Your task to perform on an android device: turn off javascript in the chrome app Image 0: 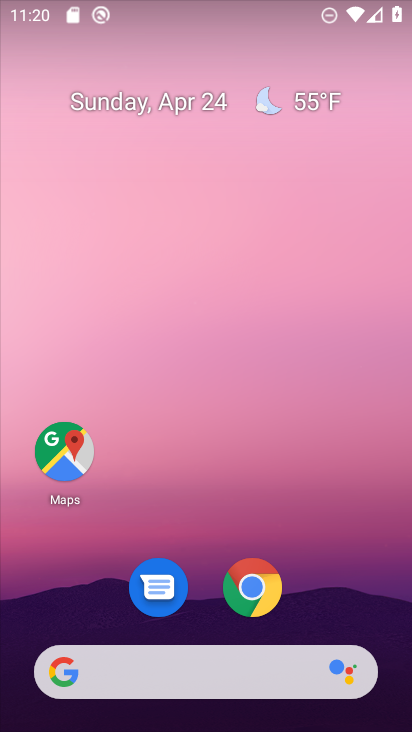
Step 0: drag from (300, 615) to (264, 168)
Your task to perform on an android device: turn off javascript in the chrome app Image 1: 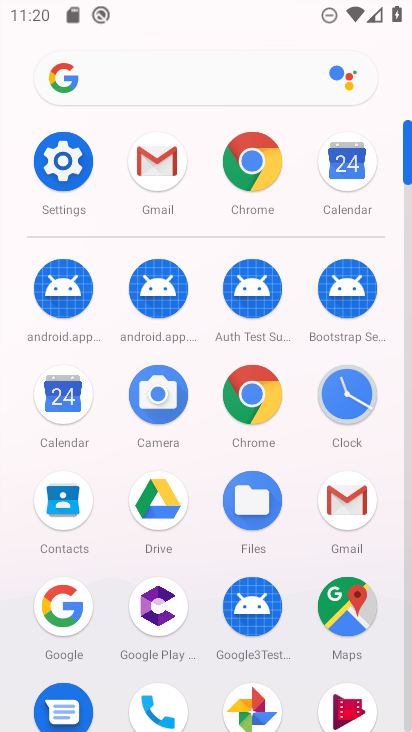
Step 1: click (249, 392)
Your task to perform on an android device: turn off javascript in the chrome app Image 2: 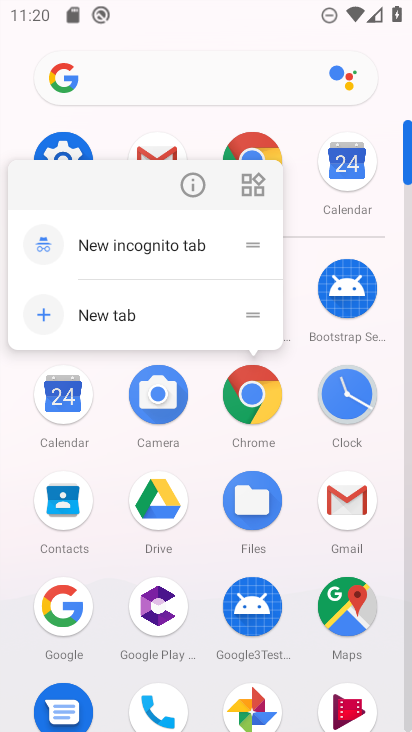
Step 2: click (246, 401)
Your task to perform on an android device: turn off javascript in the chrome app Image 3: 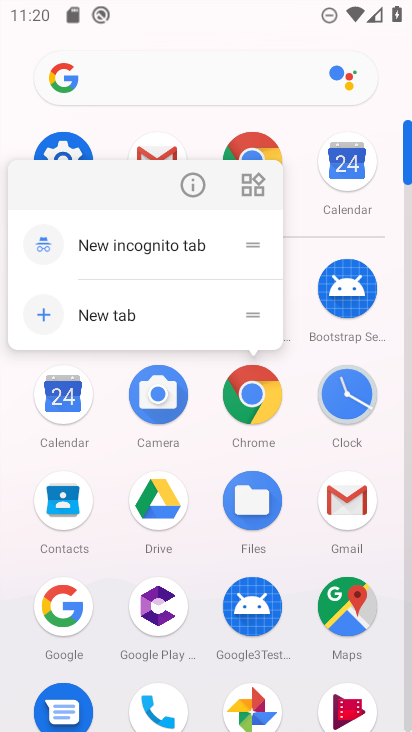
Step 3: click (263, 401)
Your task to perform on an android device: turn off javascript in the chrome app Image 4: 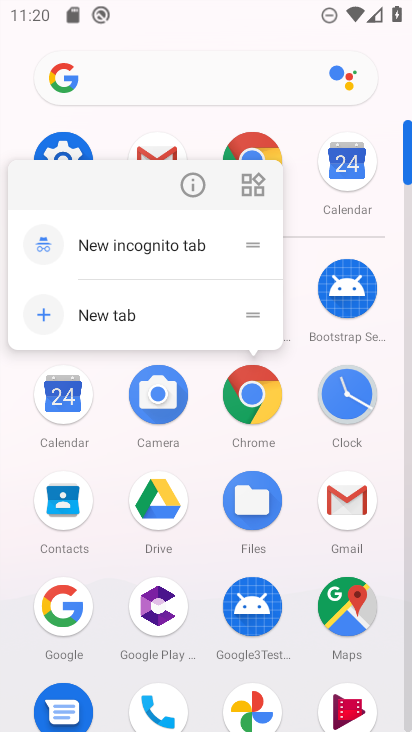
Step 4: click (268, 411)
Your task to perform on an android device: turn off javascript in the chrome app Image 5: 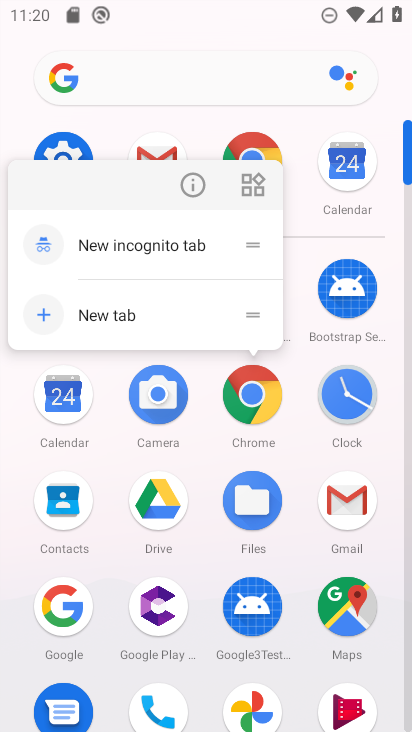
Step 5: click (233, 402)
Your task to perform on an android device: turn off javascript in the chrome app Image 6: 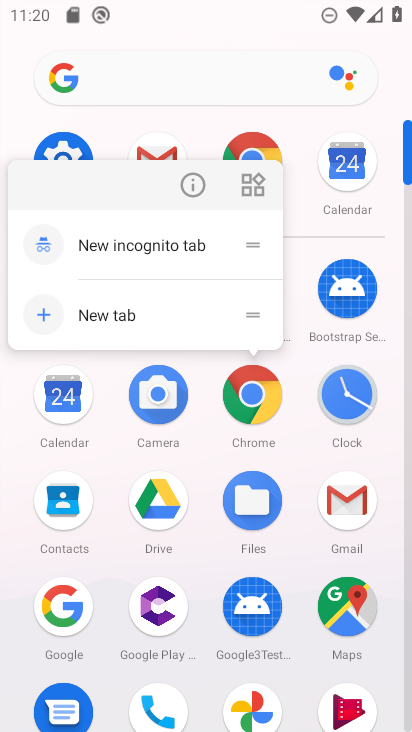
Step 6: click (251, 375)
Your task to perform on an android device: turn off javascript in the chrome app Image 7: 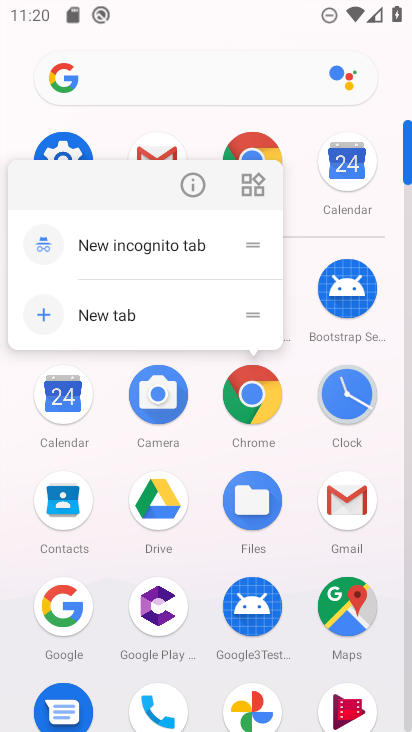
Step 7: click (258, 412)
Your task to perform on an android device: turn off javascript in the chrome app Image 8: 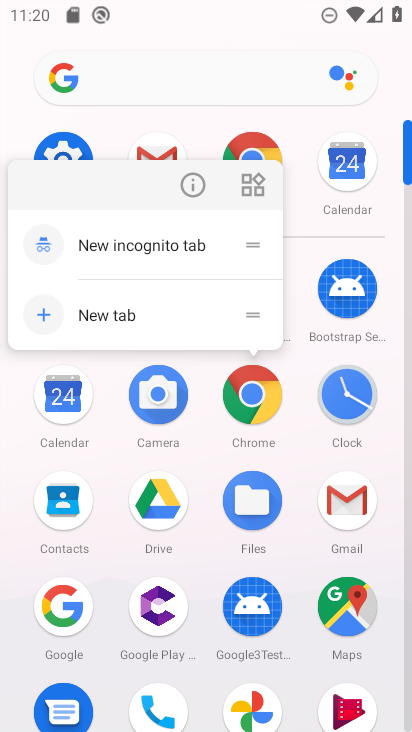
Step 8: click (257, 402)
Your task to perform on an android device: turn off javascript in the chrome app Image 9: 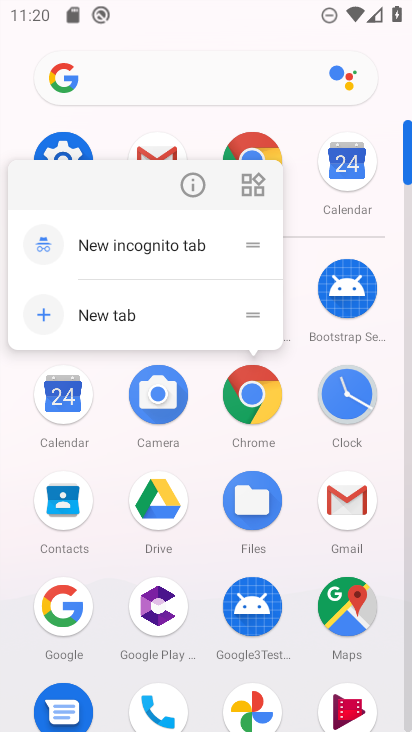
Step 9: click (292, 463)
Your task to perform on an android device: turn off javascript in the chrome app Image 10: 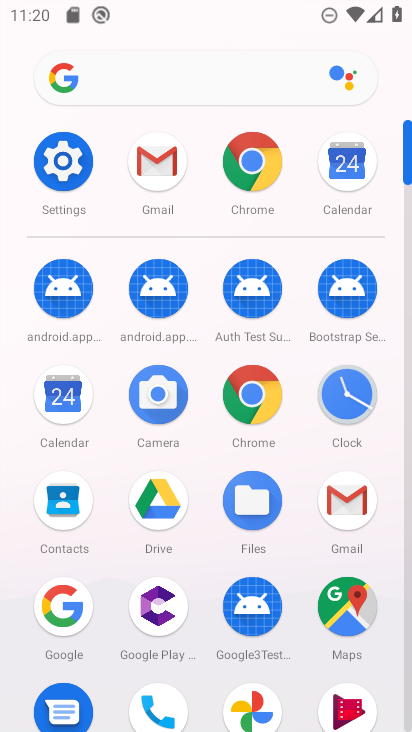
Step 10: click (245, 383)
Your task to perform on an android device: turn off javascript in the chrome app Image 11: 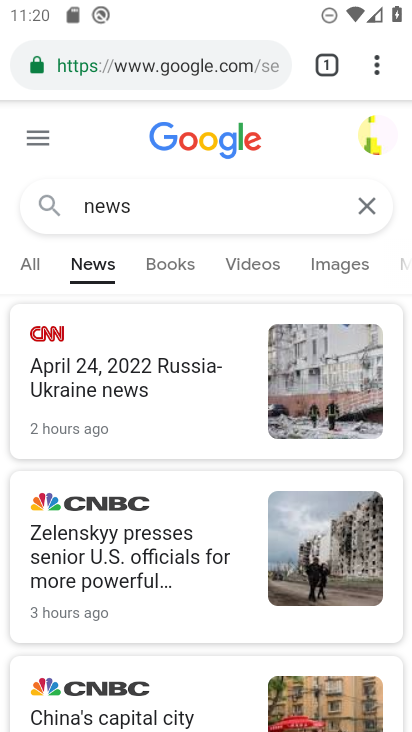
Step 11: drag from (373, 66) to (193, 627)
Your task to perform on an android device: turn off javascript in the chrome app Image 12: 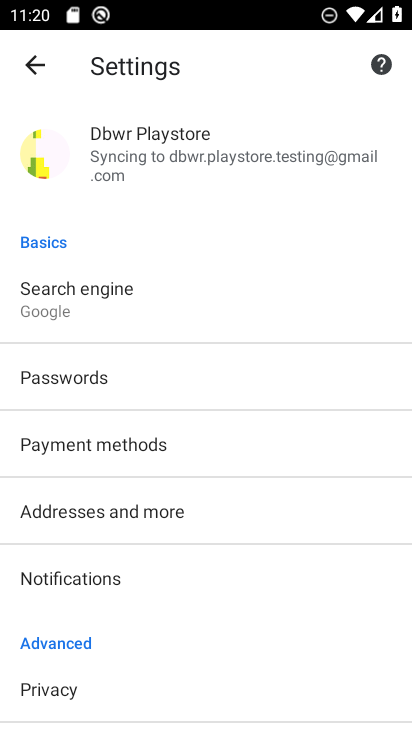
Step 12: drag from (128, 637) to (148, 127)
Your task to perform on an android device: turn off javascript in the chrome app Image 13: 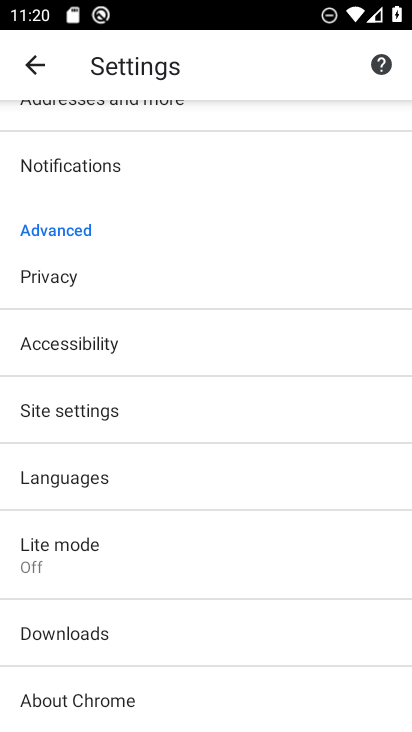
Step 13: click (128, 412)
Your task to perform on an android device: turn off javascript in the chrome app Image 14: 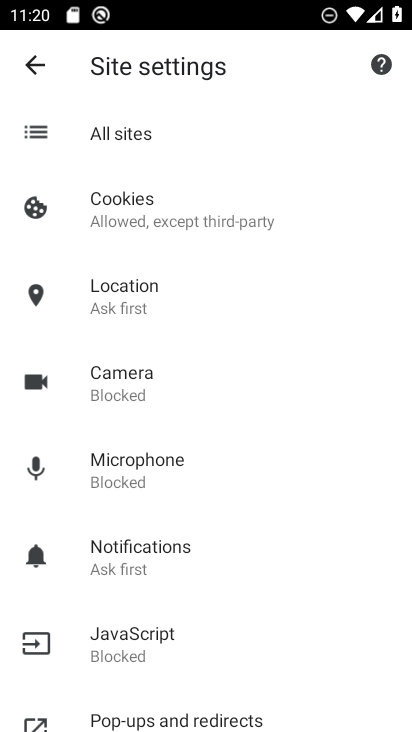
Step 14: click (149, 633)
Your task to perform on an android device: turn off javascript in the chrome app Image 15: 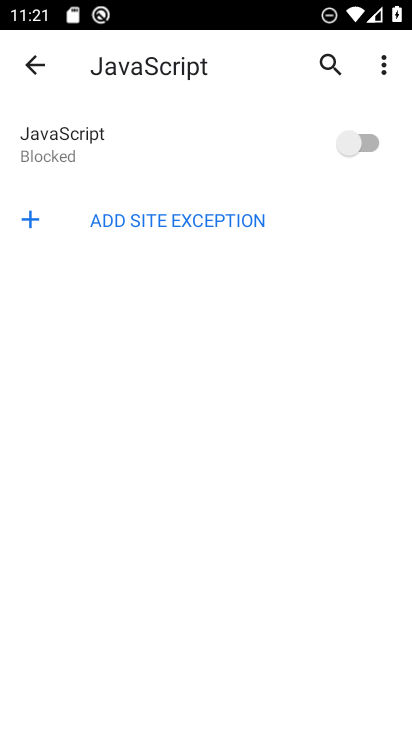
Step 15: task complete